Your task to perform on an android device: turn off smart reply in the gmail app Image 0: 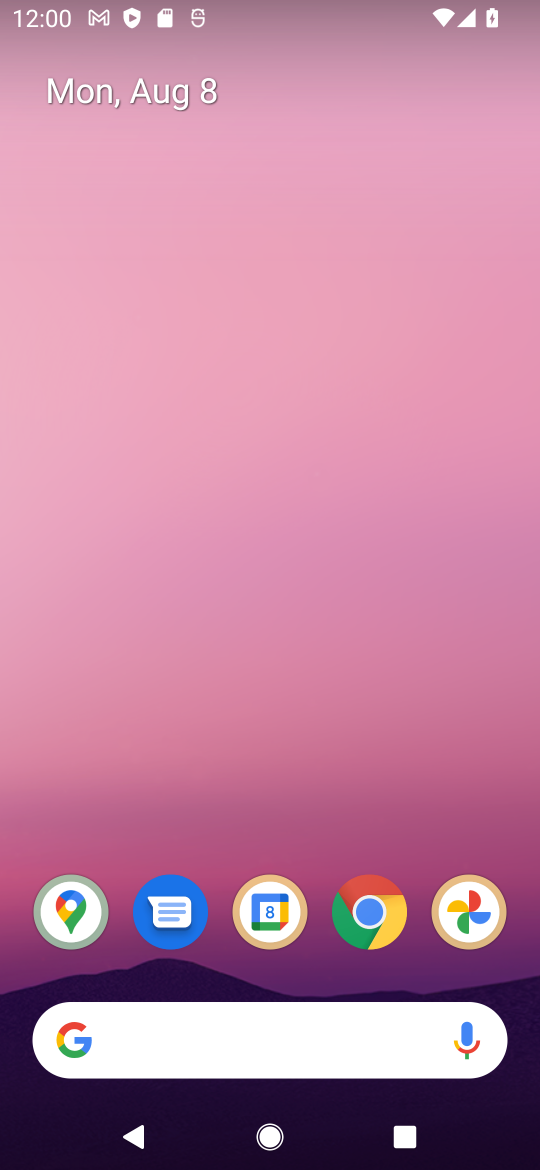
Step 0: drag from (274, 992) to (390, 58)
Your task to perform on an android device: turn off smart reply in the gmail app Image 1: 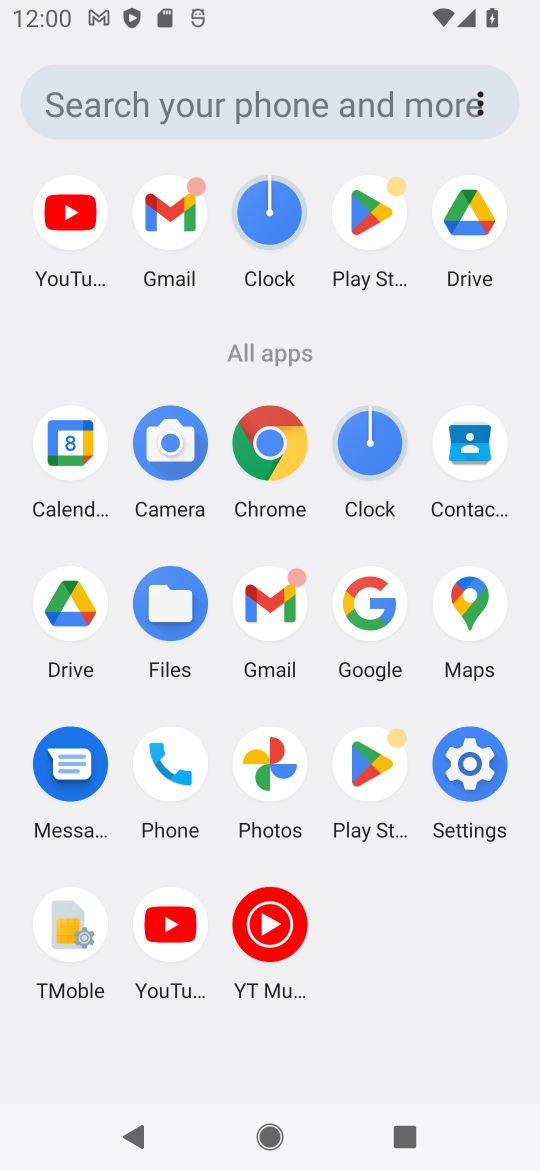
Step 1: click (184, 189)
Your task to perform on an android device: turn off smart reply in the gmail app Image 2: 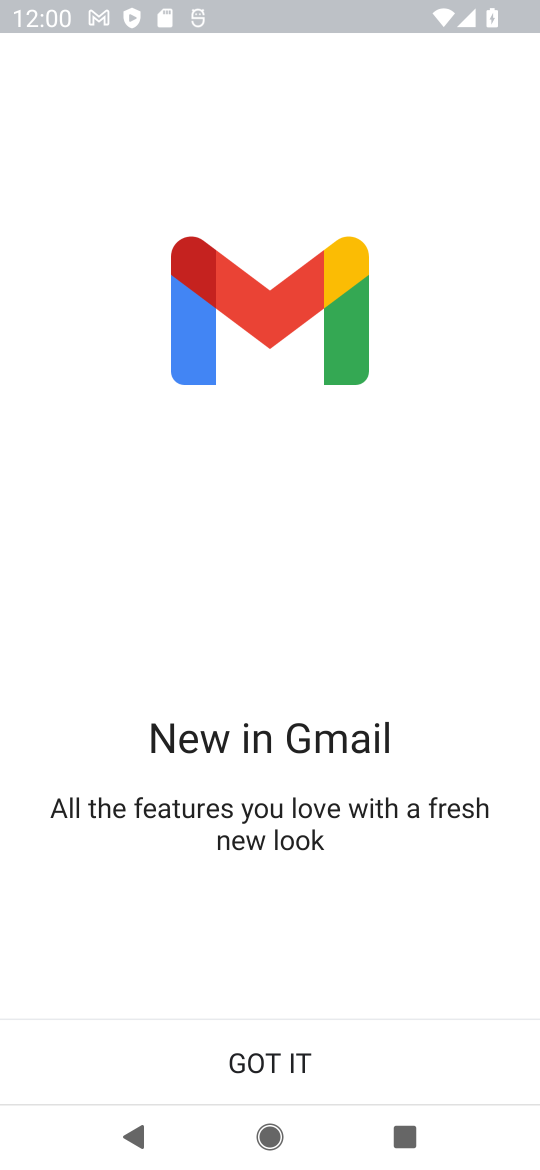
Step 2: click (260, 1047)
Your task to perform on an android device: turn off smart reply in the gmail app Image 3: 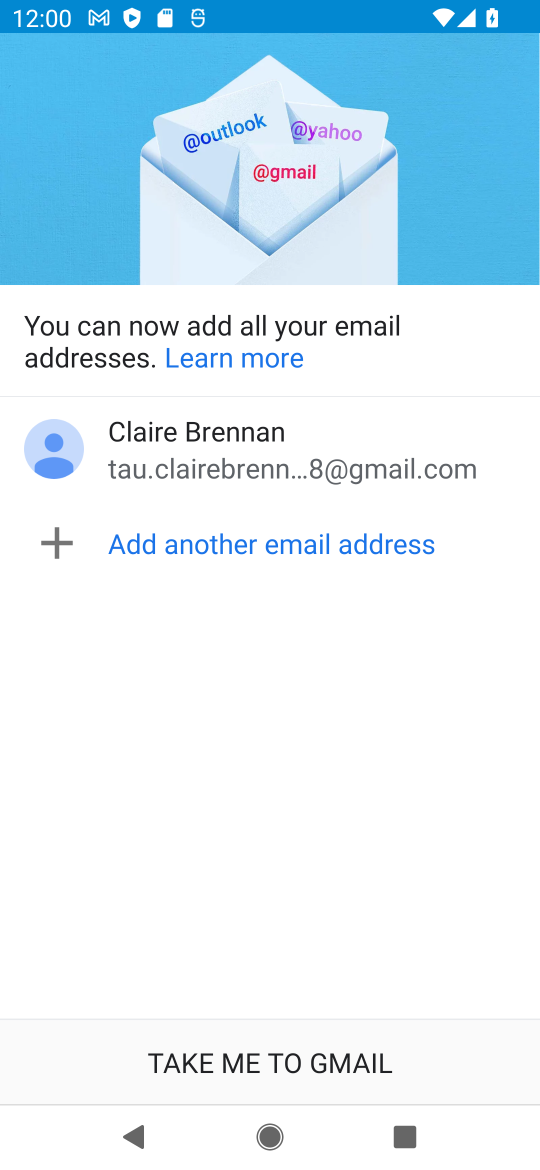
Step 3: click (272, 1067)
Your task to perform on an android device: turn off smart reply in the gmail app Image 4: 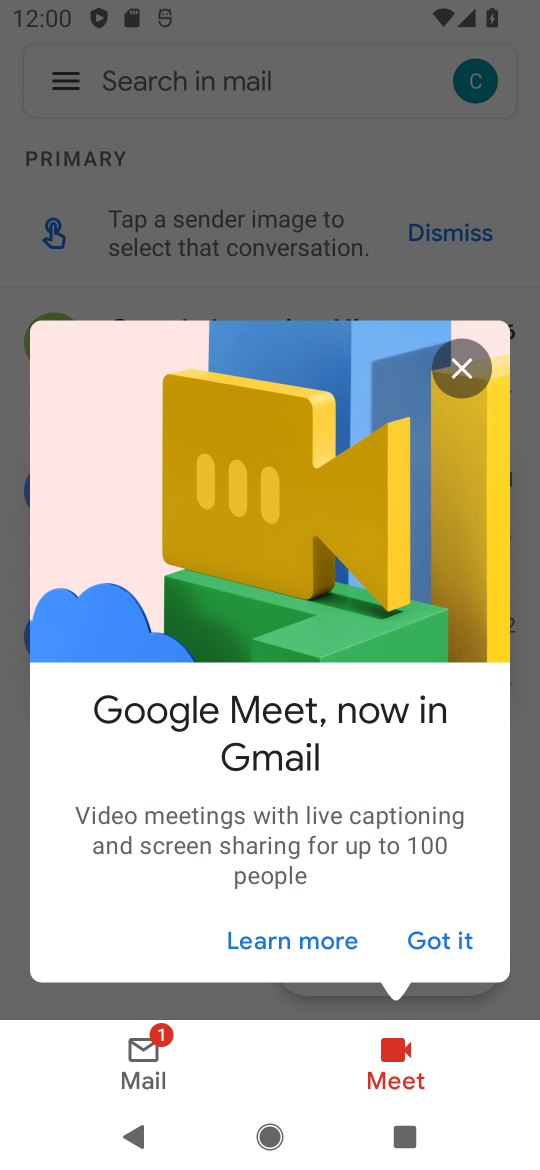
Step 4: click (456, 934)
Your task to perform on an android device: turn off smart reply in the gmail app Image 5: 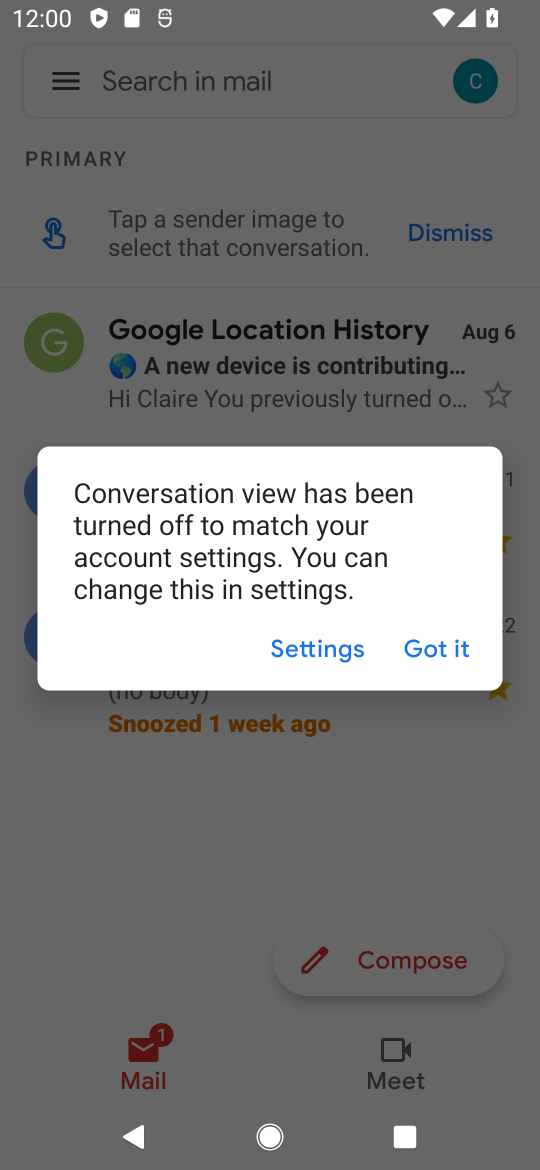
Step 5: click (418, 657)
Your task to perform on an android device: turn off smart reply in the gmail app Image 6: 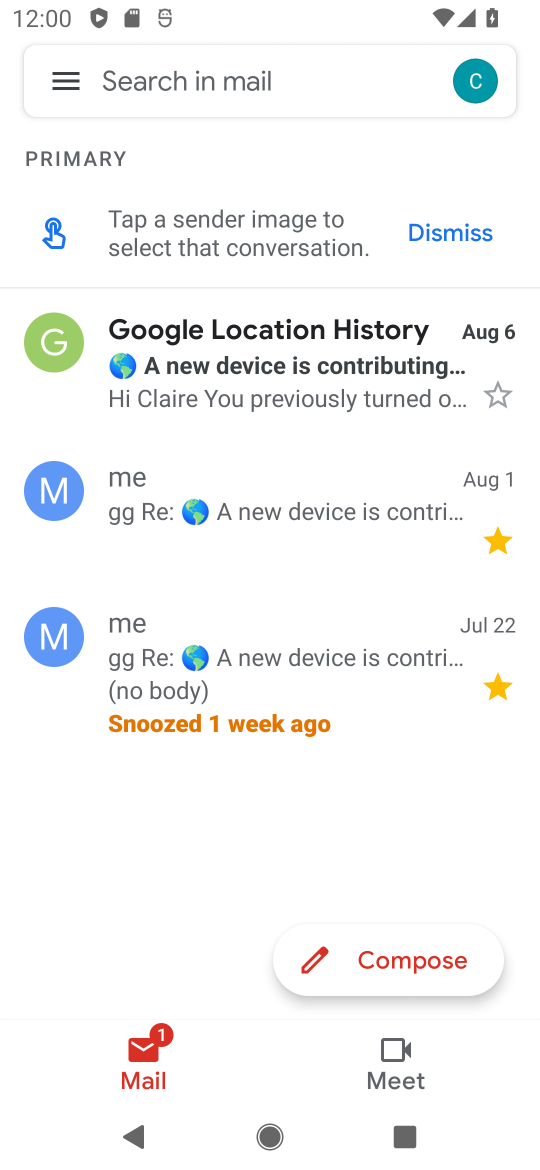
Step 6: click (51, 74)
Your task to perform on an android device: turn off smart reply in the gmail app Image 7: 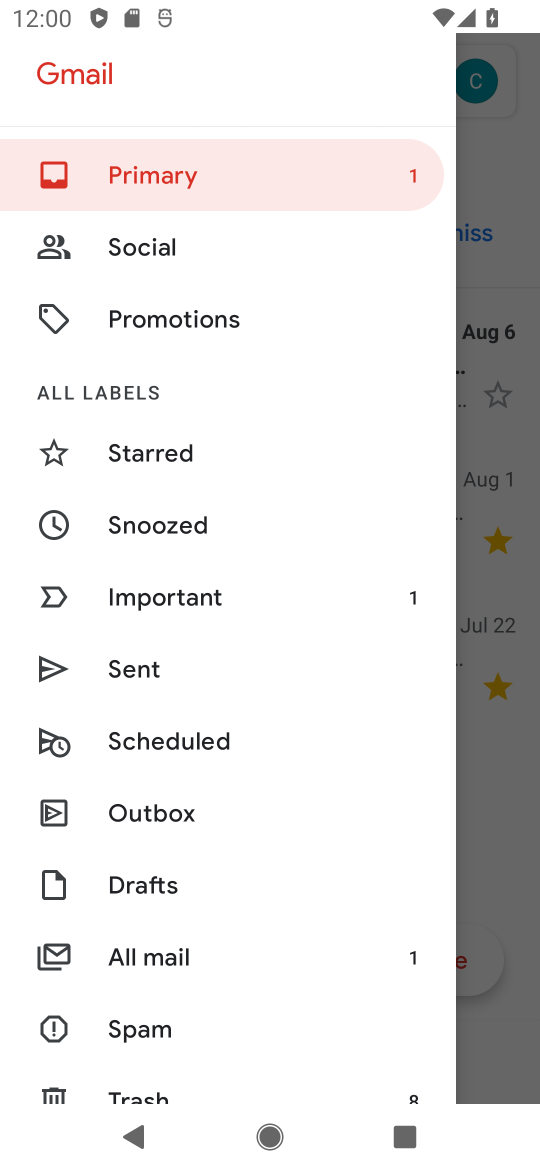
Step 7: drag from (173, 1018) to (318, 47)
Your task to perform on an android device: turn off smart reply in the gmail app Image 8: 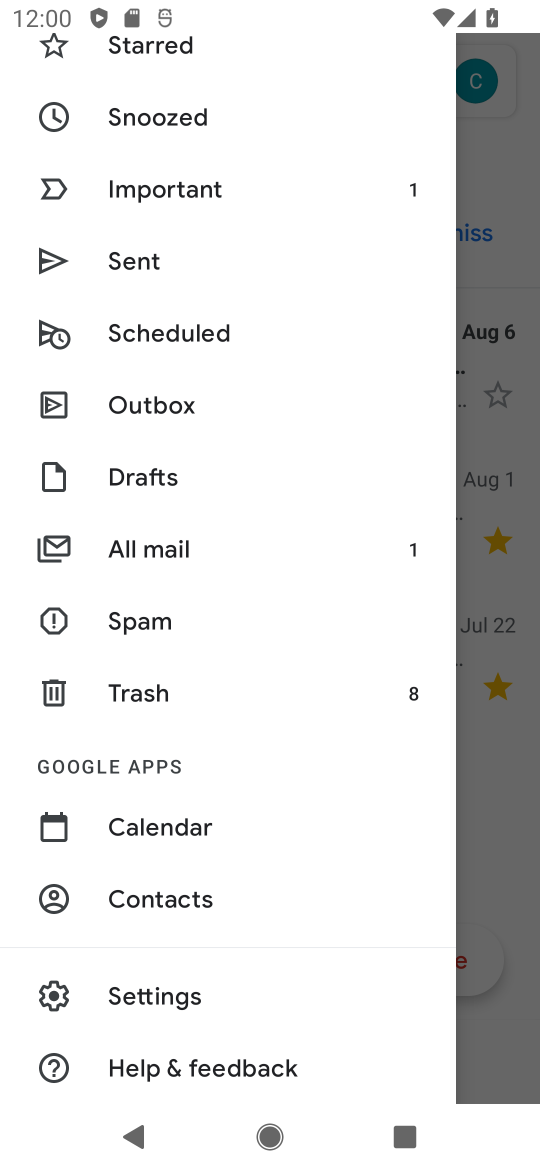
Step 8: click (160, 1007)
Your task to perform on an android device: turn off smart reply in the gmail app Image 9: 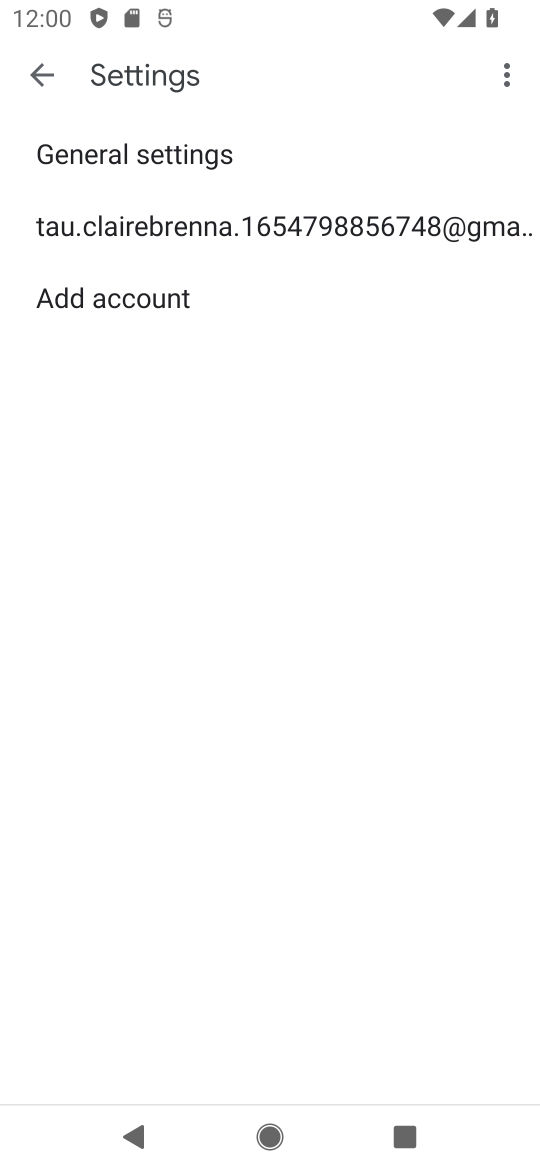
Step 9: click (218, 192)
Your task to perform on an android device: turn off smart reply in the gmail app Image 10: 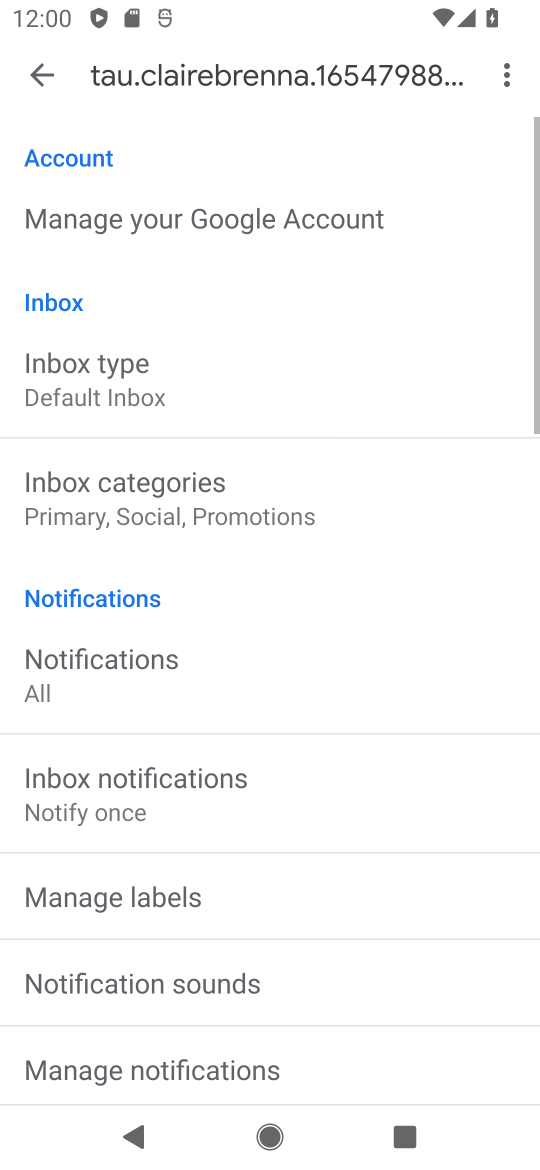
Step 10: drag from (185, 1033) to (393, 0)
Your task to perform on an android device: turn off smart reply in the gmail app Image 11: 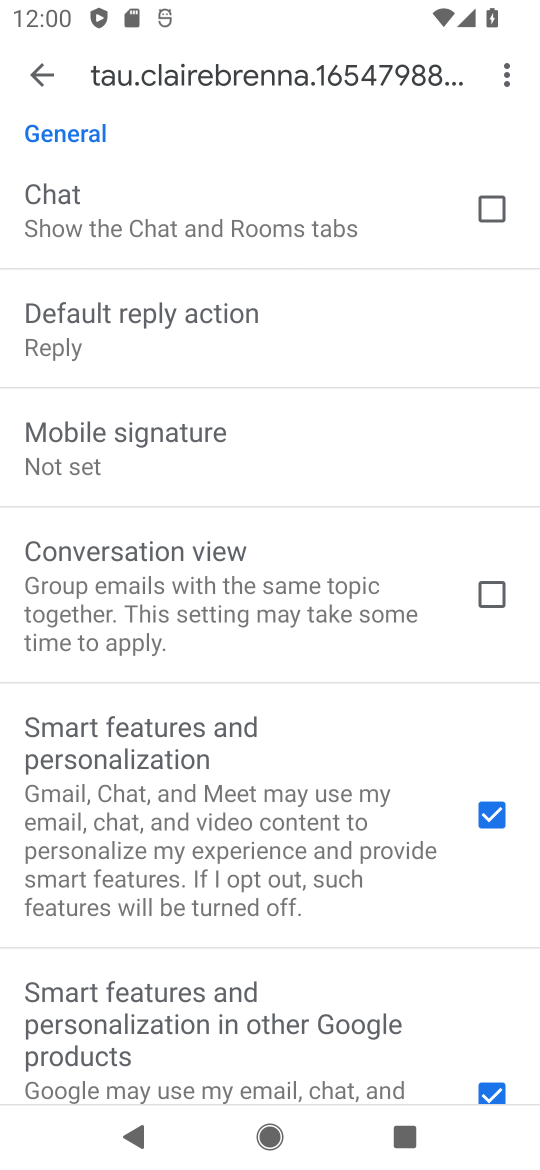
Step 11: drag from (172, 1010) to (350, 46)
Your task to perform on an android device: turn off smart reply in the gmail app Image 12: 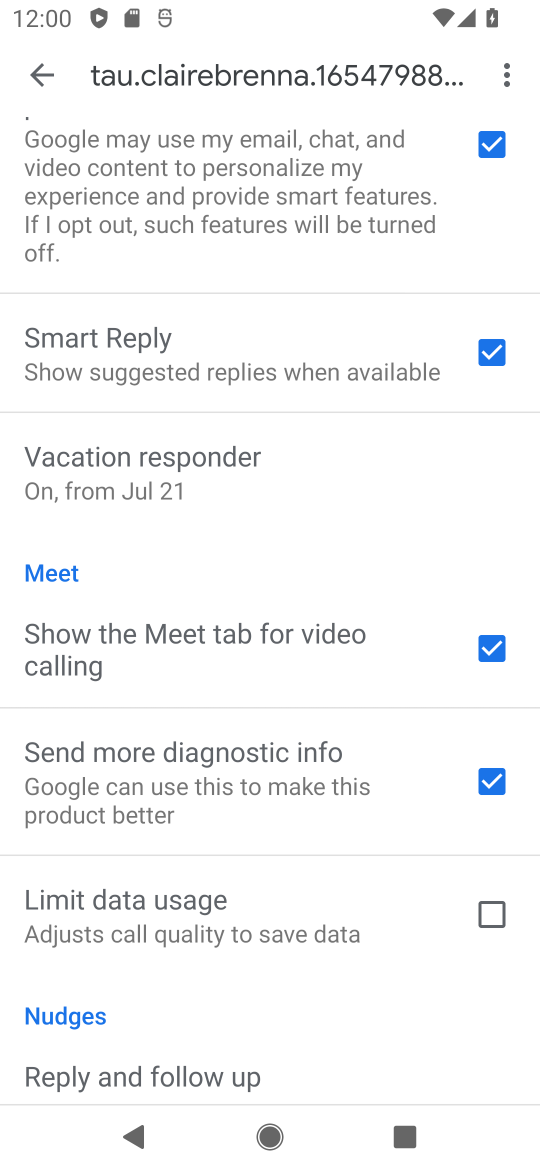
Step 12: click (487, 350)
Your task to perform on an android device: turn off smart reply in the gmail app Image 13: 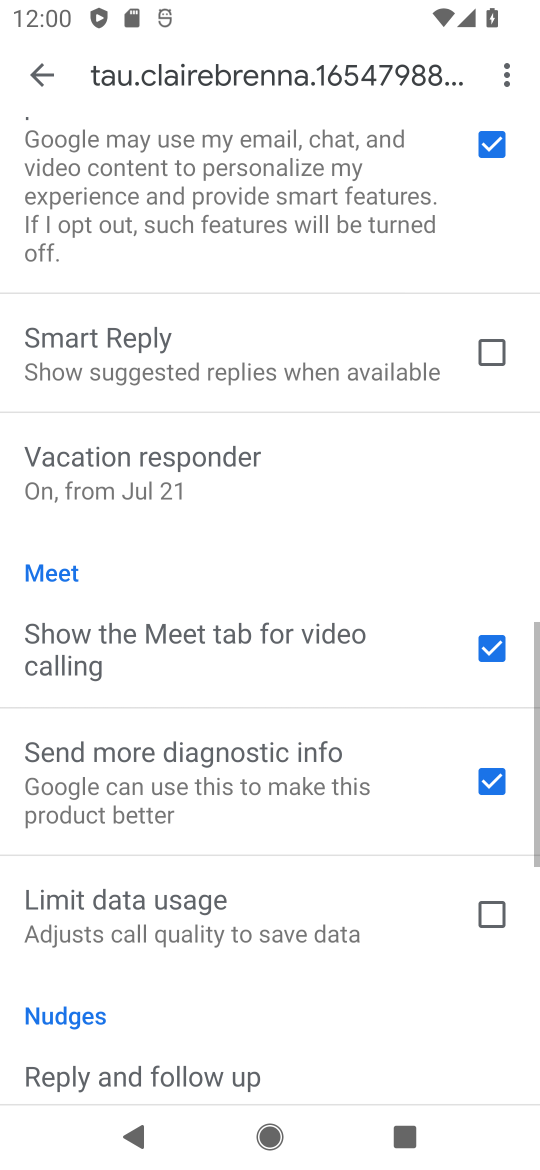
Step 13: task complete